Your task to perform on an android device: uninstall "Airtel Thanks" Image 0: 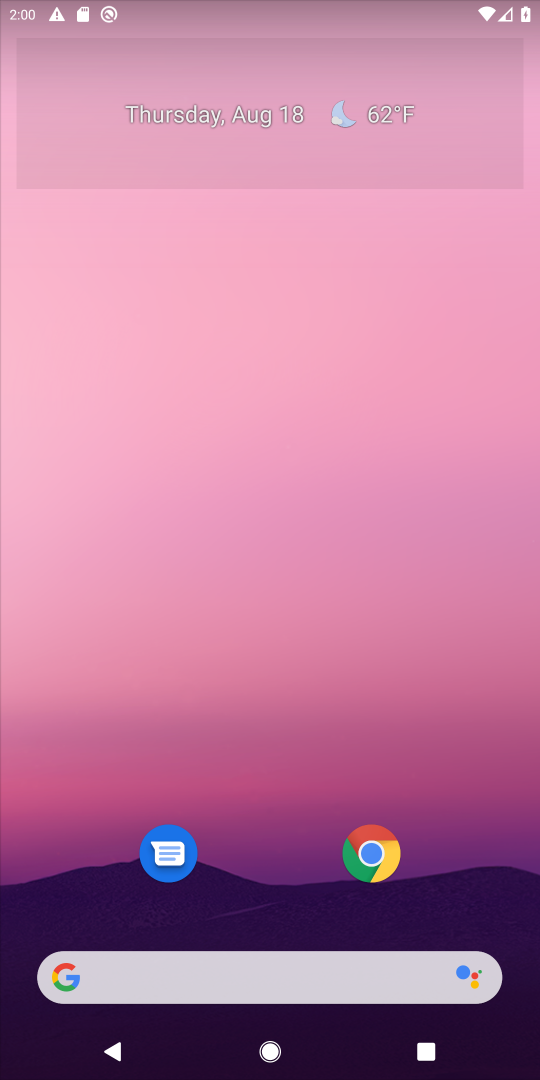
Step 0: drag from (496, 870) to (213, 64)
Your task to perform on an android device: uninstall "Airtel Thanks" Image 1: 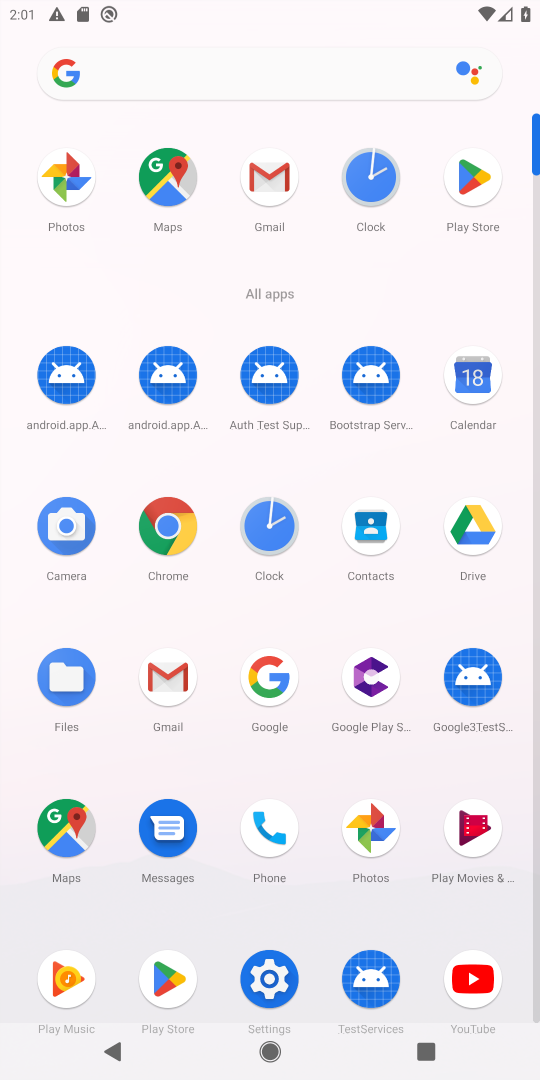
Step 1: click (476, 202)
Your task to perform on an android device: uninstall "Airtel Thanks" Image 2: 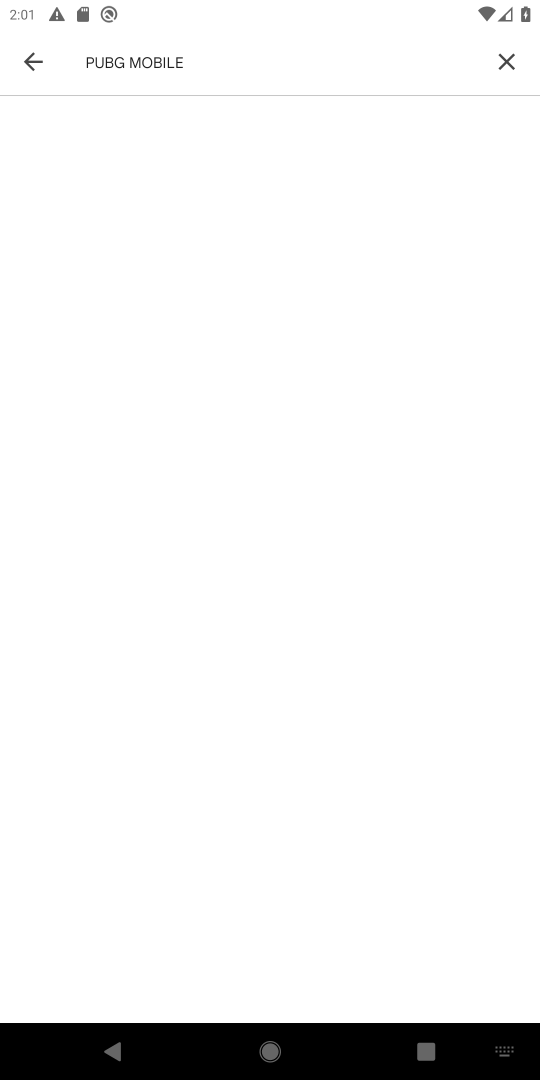
Step 2: click (492, 65)
Your task to perform on an android device: uninstall "Airtel Thanks" Image 3: 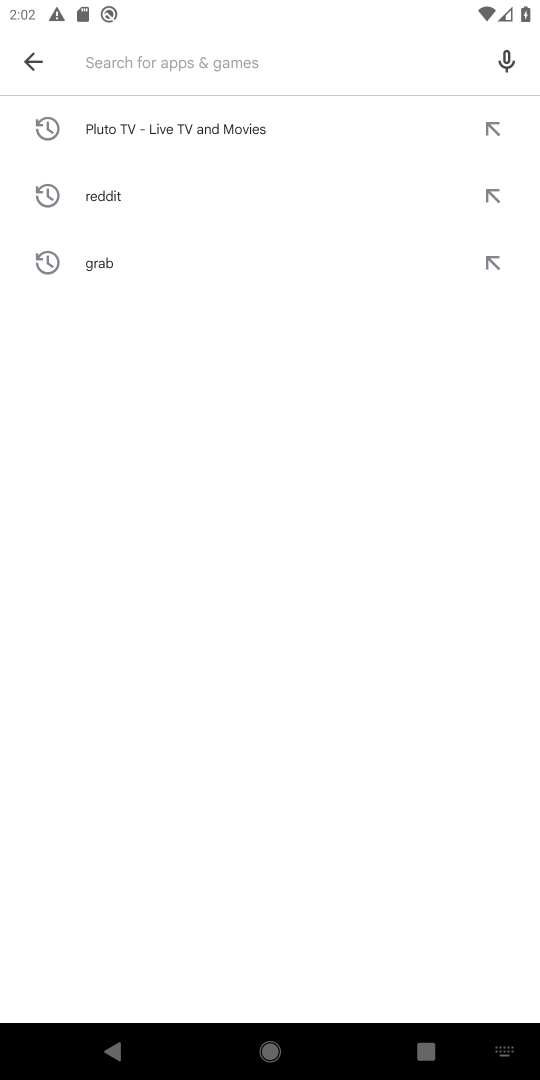
Step 3: type "Airtel Thanks"
Your task to perform on an android device: uninstall "Airtel Thanks" Image 4: 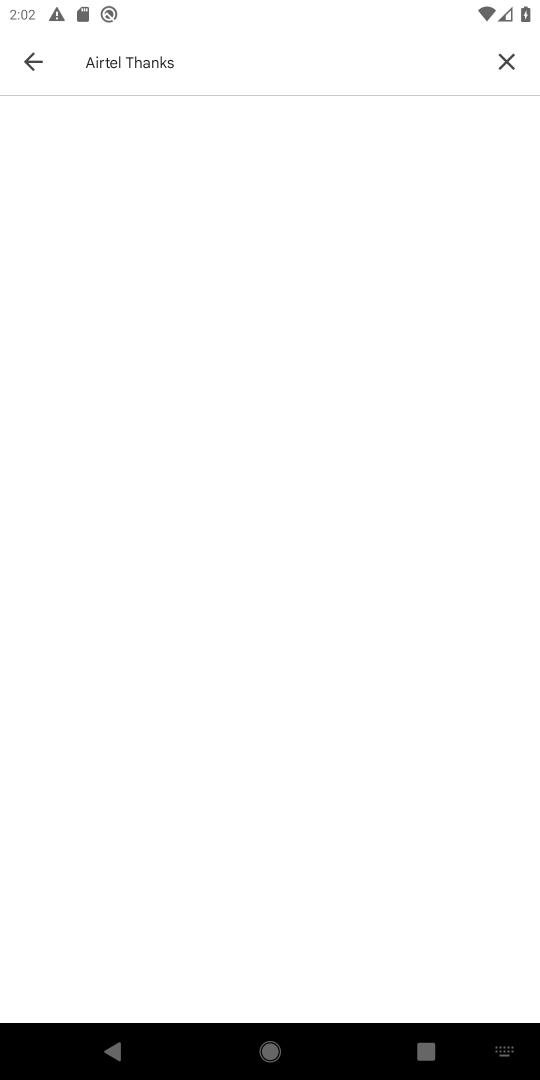
Step 4: task complete